Your task to perform on an android device: toggle location history Image 0: 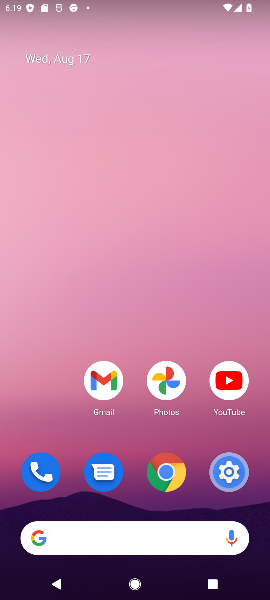
Step 0: drag from (136, 429) to (149, 366)
Your task to perform on an android device: toggle location history Image 1: 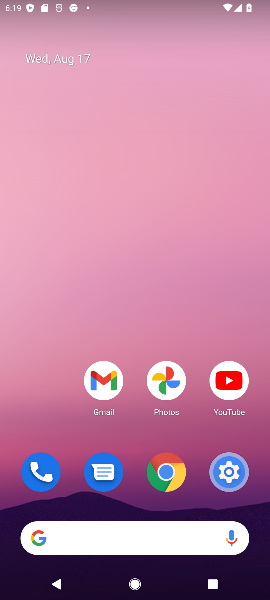
Step 1: click (219, 470)
Your task to perform on an android device: toggle location history Image 2: 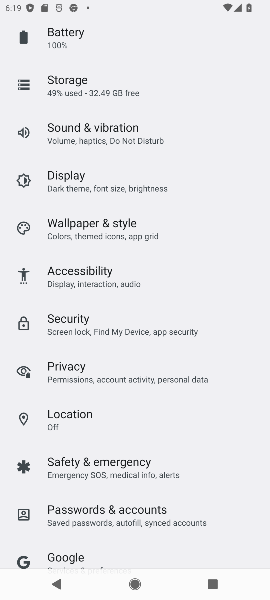
Step 2: click (102, 419)
Your task to perform on an android device: toggle location history Image 3: 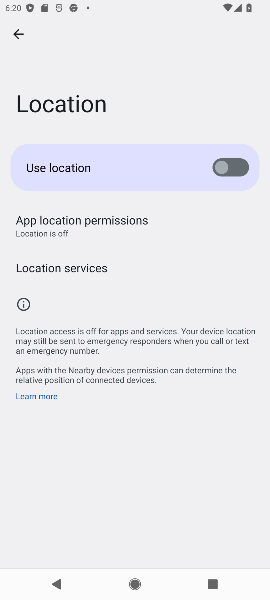
Step 3: click (103, 273)
Your task to perform on an android device: toggle location history Image 4: 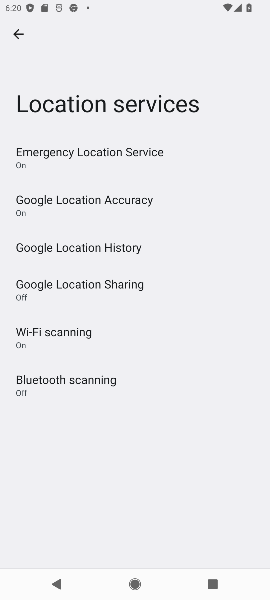
Step 4: click (106, 243)
Your task to perform on an android device: toggle location history Image 5: 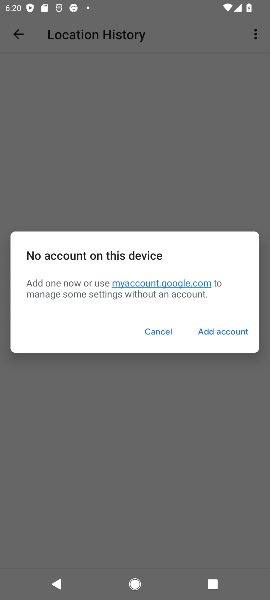
Step 5: click (147, 339)
Your task to perform on an android device: toggle location history Image 6: 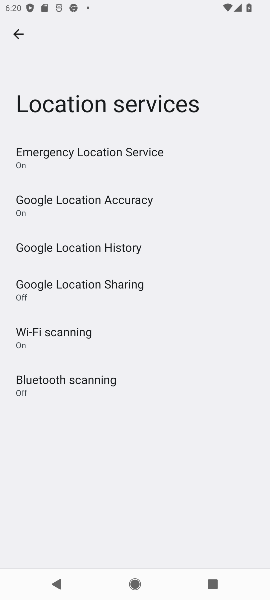
Step 6: click (105, 253)
Your task to perform on an android device: toggle location history Image 7: 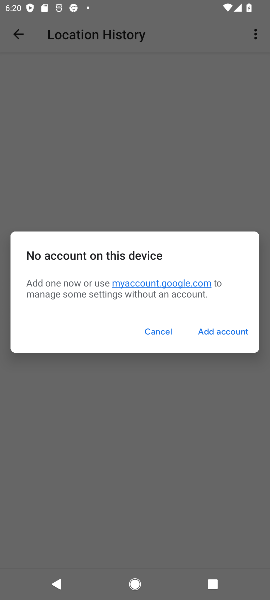
Step 7: click (149, 329)
Your task to perform on an android device: toggle location history Image 8: 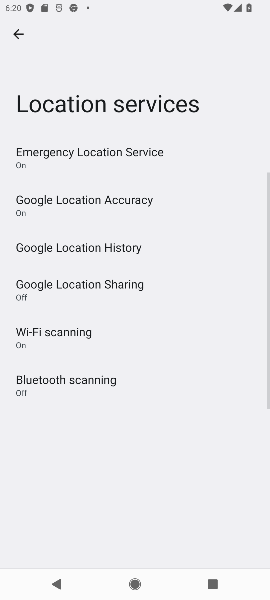
Step 8: task complete